Your task to perform on an android device: allow cookies in the chrome app Image 0: 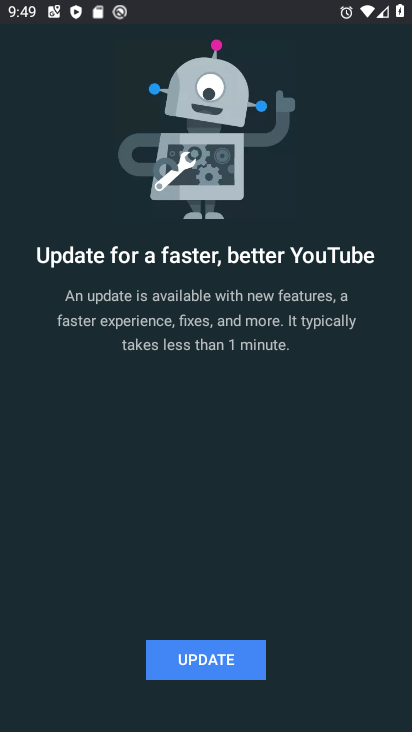
Step 0: press home button
Your task to perform on an android device: allow cookies in the chrome app Image 1: 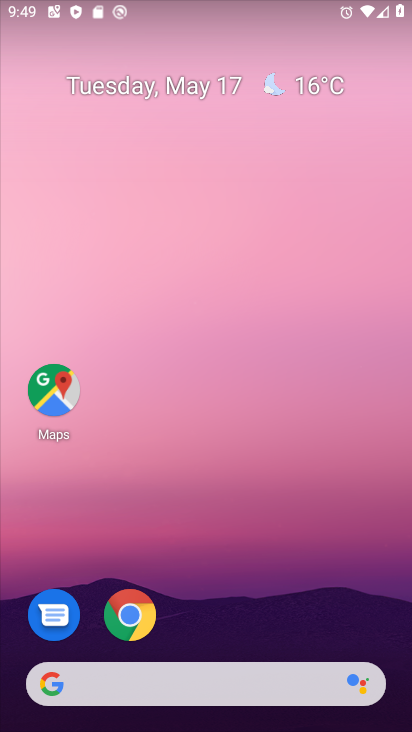
Step 1: click (137, 616)
Your task to perform on an android device: allow cookies in the chrome app Image 2: 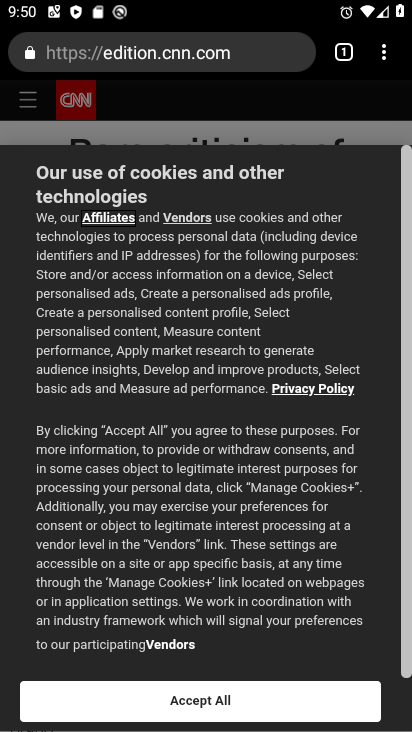
Step 2: click (378, 57)
Your task to perform on an android device: allow cookies in the chrome app Image 3: 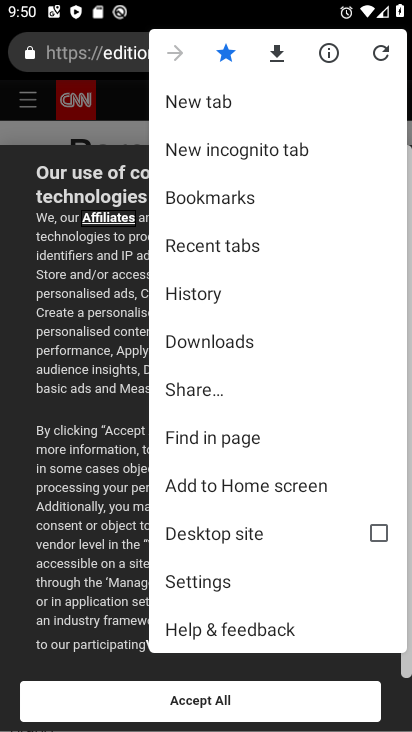
Step 3: click (198, 577)
Your task to perform on an android device: allow cookies in the chrome app Image 4: 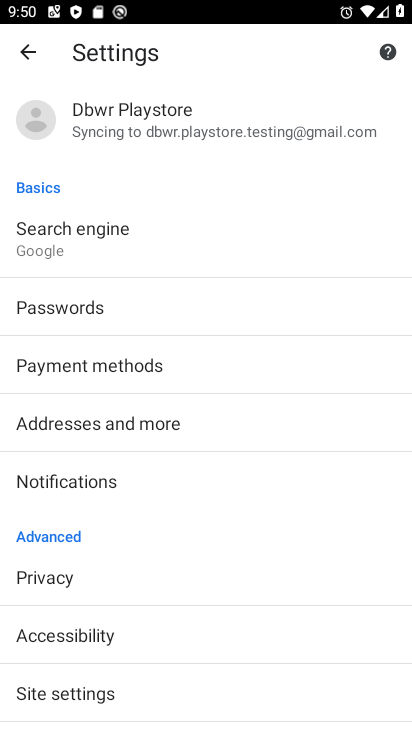
Step 4: click (145, 680)
Your task to perform on an android device: allow cookies in the chrome app Image 5: 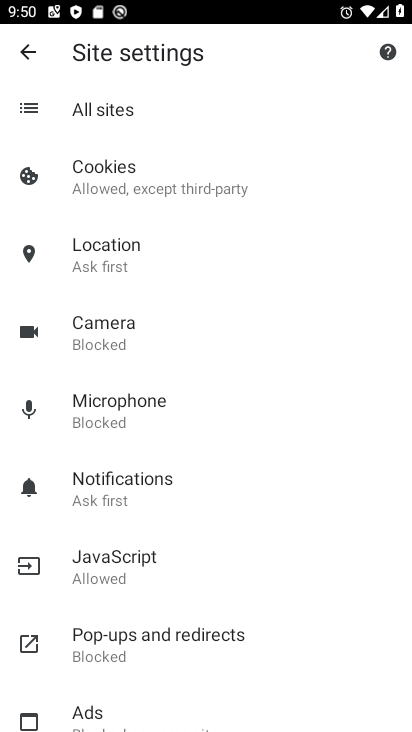
Step 5: click (129, 172)
Your task to perform on an android device: allow cookies in the chrome app Image 6: 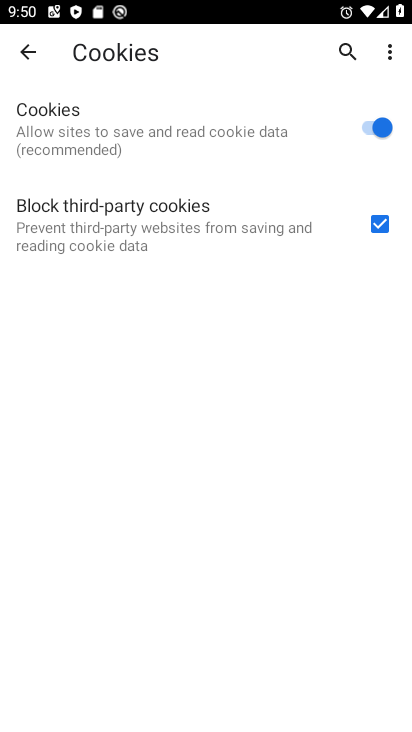
Step 6: click (386, 232)
Your task to perform on an android device: allow cookies in the chrome app Image 7: 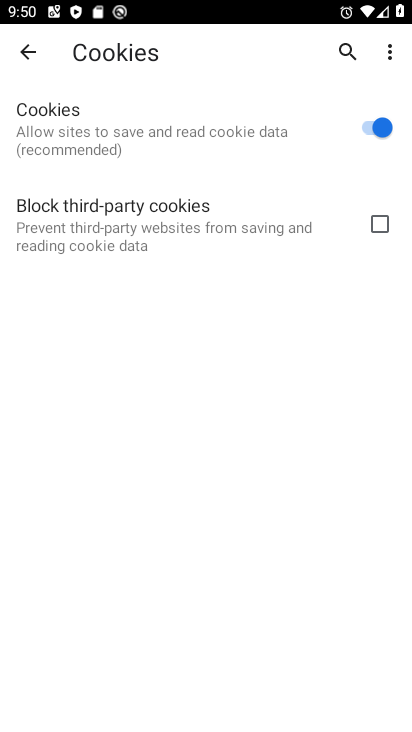
Step 7: task complete